Your task to perform on an android device: see creations saved in the google photos Image 0: 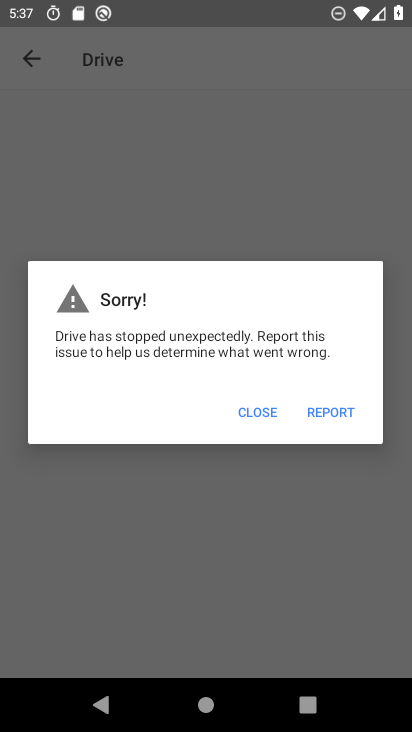
Step 0: press home button
Your task to perform on an android device: see creations saved in the google photos Image 1: 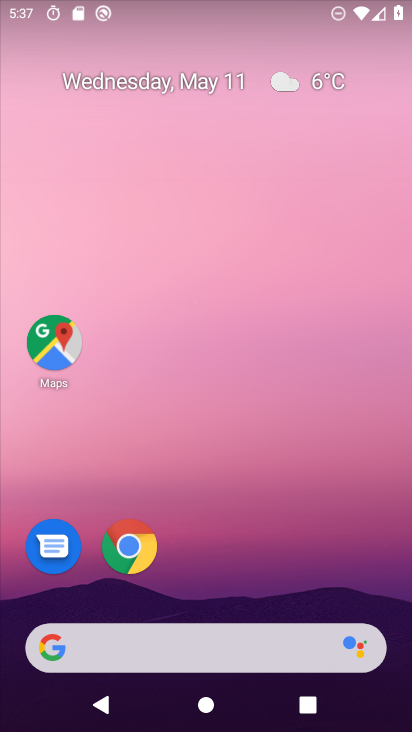
Step 1: drag from (207, 611) to (165, 319)
Your task to perform on an android device: see creations saved in the google photos Image 2: 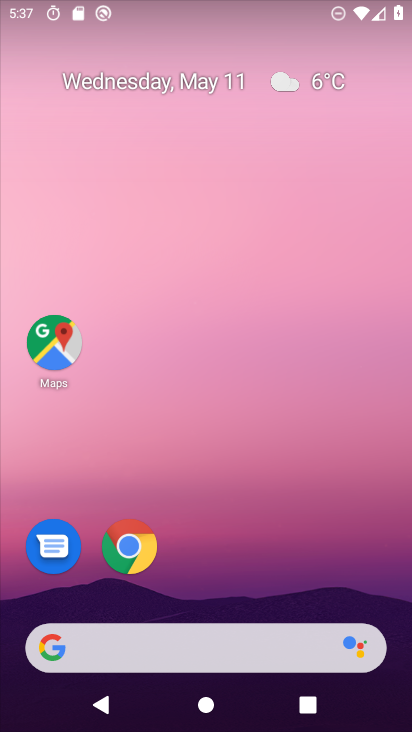
Step 2: drag from (259, 624) to (225, 195)
Your task to perform on an android device: see creations saved in the google photos Image 3: 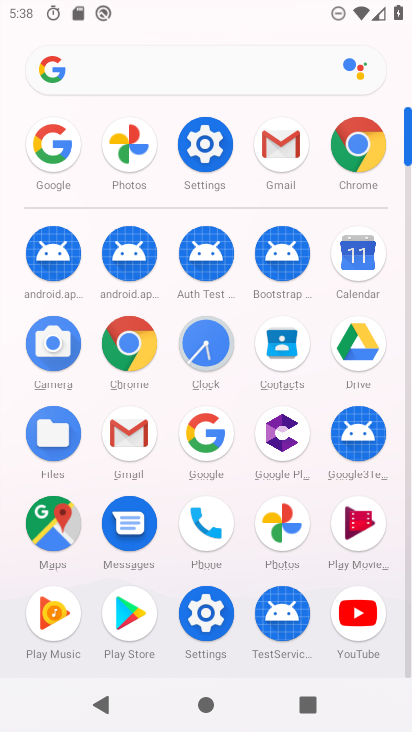
Step 3: click (288, 530)
Your task to perform on an android device: see creations saved in the google photos Image 4: 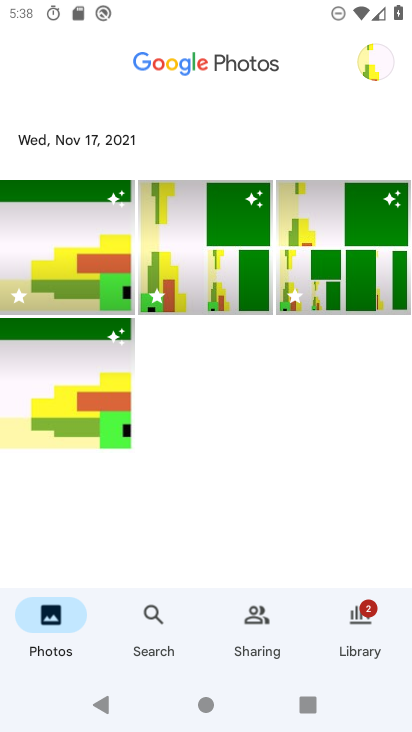
Step 4: click (374, 620)
Your task to perform on an android device: see creations saved in the google photos Image 5: 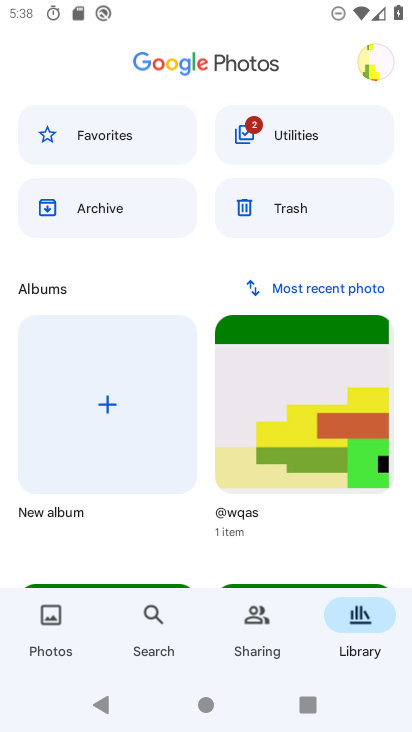
Step 5: task complete